Your task to perform on an android device: Open the gallery Image 0: 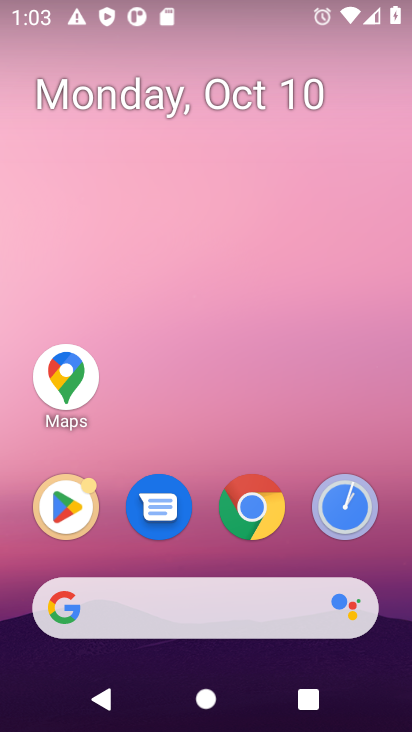
Step 0: press home button
Your task to perform on an android device: Open the gallery Image 1: 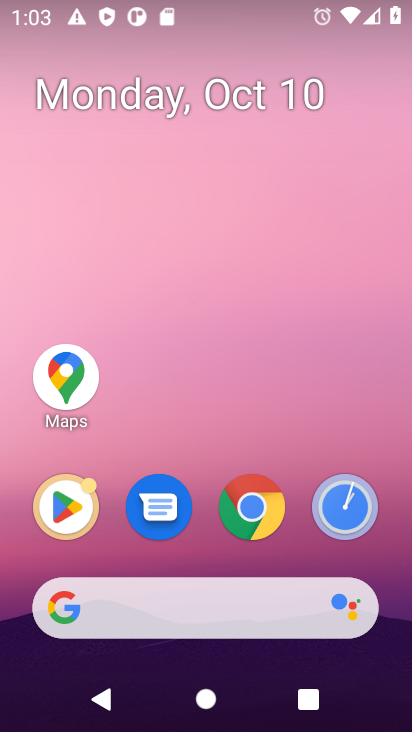
Step 1: task complete